Your task to perform on an android device: turn notification dots on Image 0: 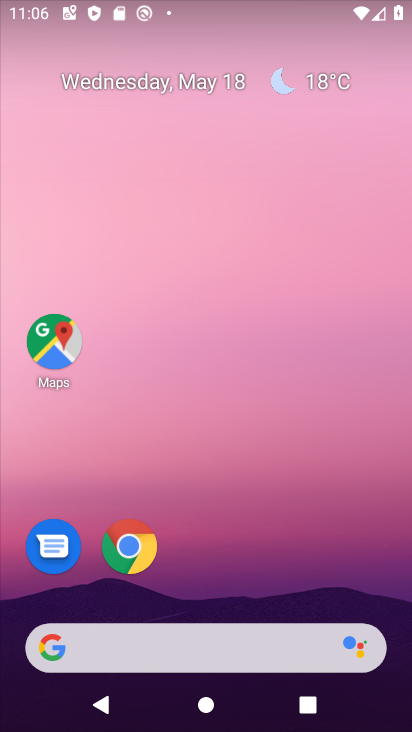
Step 0: drag from (229, 711) to (225, 70)
Your task to perform on an android device: turn notification dots on Image 1: 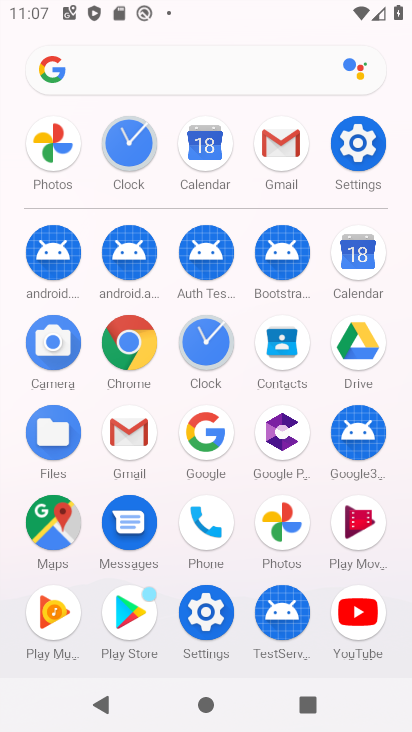
Step 1: click (360, 141)
Your task to perform on an android device: turn notification dots on Image 2: 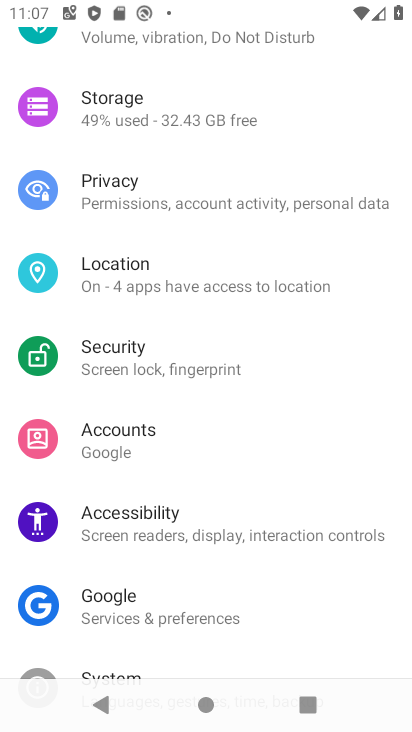
Step 2: drag from (249, 124) to (245, 561)
Your task to perform on an android device: turn notification dots on Image 3: 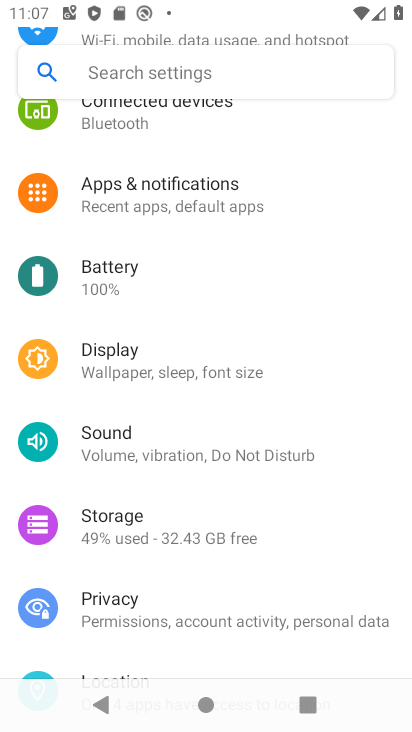
Step 3: click (192, 198)
Your task to perform on an android device: turn notification dots on Image 4: 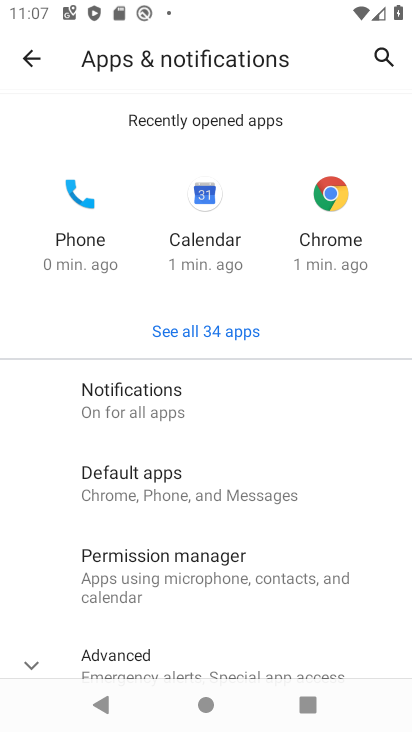
Step 4: click (131, 403)
Your task to perform on an android device: turn notification dots on Image 5: 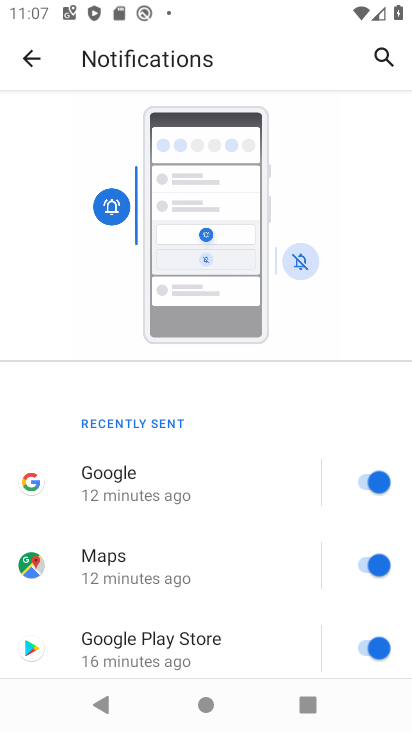
Step 5: drag from (186, 640) to (214, 445)
Your task to perform on an android device: turn notification dots on Image 6: 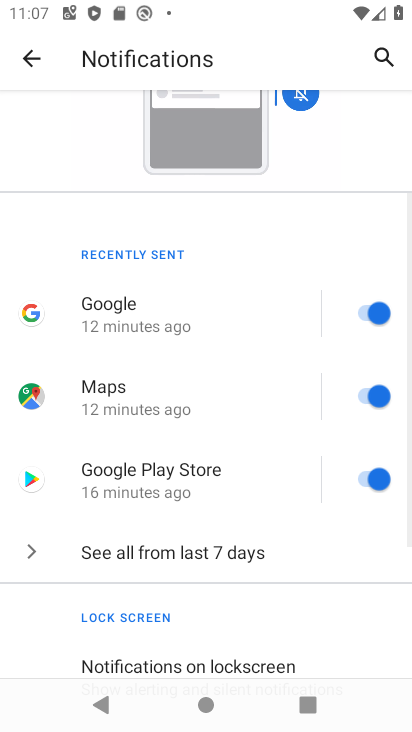
Step 6: drag from (194, 657) to (206, 327)
Your task to perform on an android device: turn notification dots on Image 7: 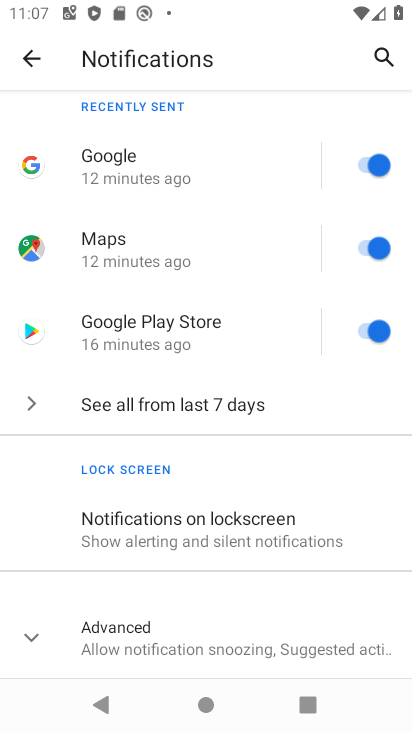
Step 7: click (130, 627)
Your task to perform on an android device: turn notification dots on Image 8: 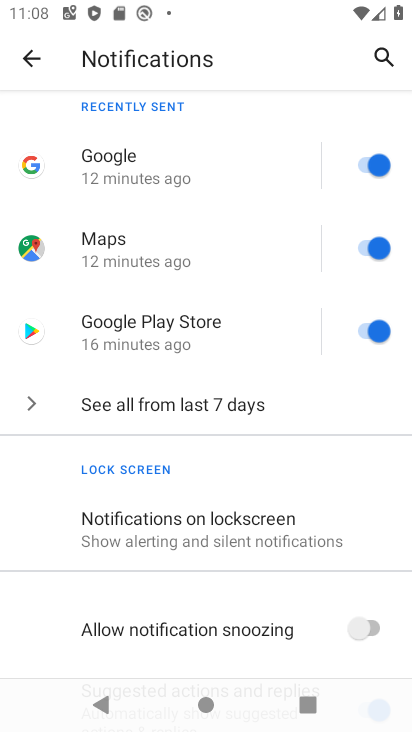
Step 8: task complete